Your task to perform on an android device: Open the calendar app, open the side menu, and click the "Day" option Image 0: 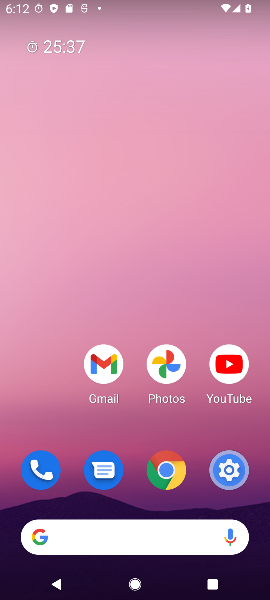
Step 0: drag from (159, 500) to (235, 3)
Your task to perform on an android device: Open the calendar app, open the side menu, and click the "Day" option Image 1: 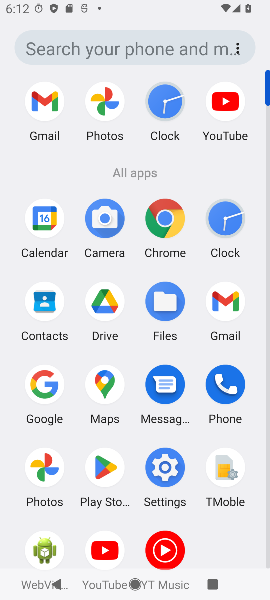
Step 1: click (40, 216)
Your task to perform on an android device: Open the calendar app, open the side menu, and click the "Day" option Image 2: 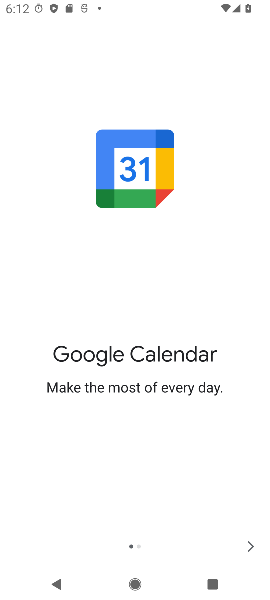
Step 2: click (249, 548)
Your task to perform on an android device: Open the calendar app, open the side menu, and click the "Day" option Image 3: 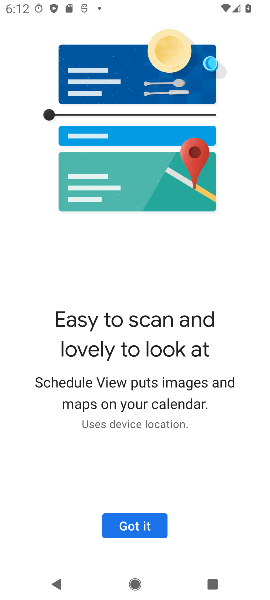
Step 3: click (139, 527)
Your task to perform on an android device: Open the calendar app, open the side menu, and click the "Day" option Image 4: 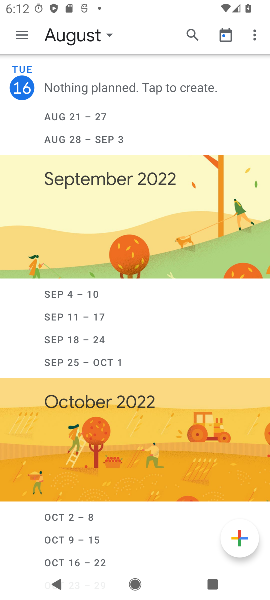
Step 4: click (23, 37)
Your task to perform on an android device: Open the calendar app, open the side menu, and click the "Day" option Image 5: 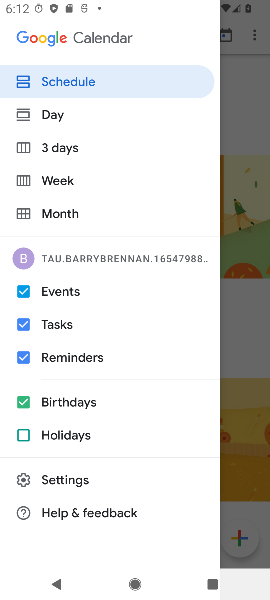
Step 5: click (60, 108)
Your task to perform on an android device: Open the calendar app, open the side menu, and click the "Day" option Image 6: 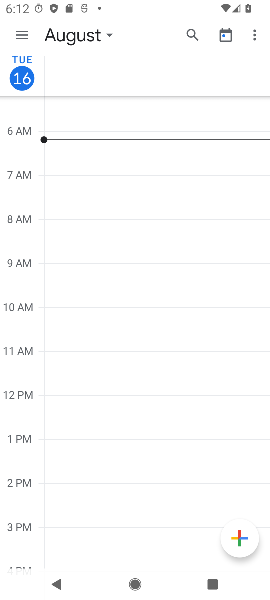
Step 6: task complete